Your task to perform on an android device: Show me popular videos on Youtube Image 0: 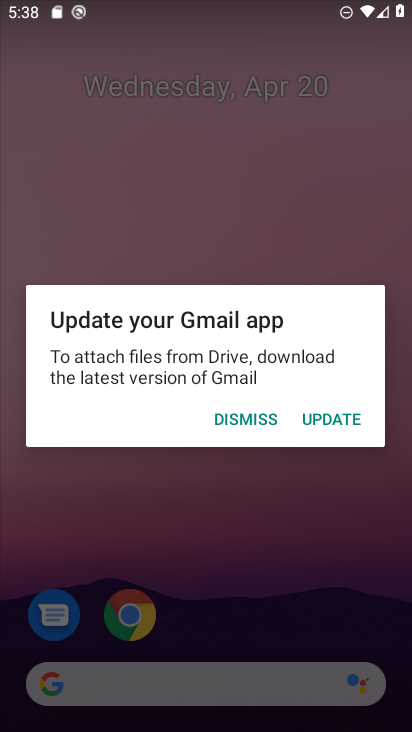
Step 0: press home button
Your task to perform on an android device: Show me popular videos on Youtube Image 1: 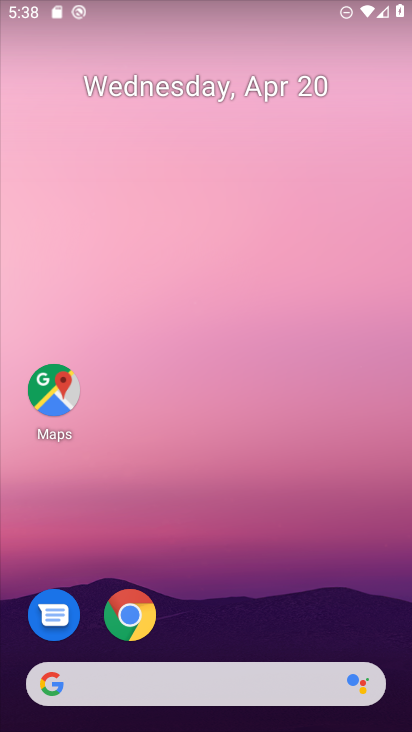
Step 1: drag from (238, 584) to (212, 119)
Your task to perform on an android device: Show me popular videos on Youtube Image 2: 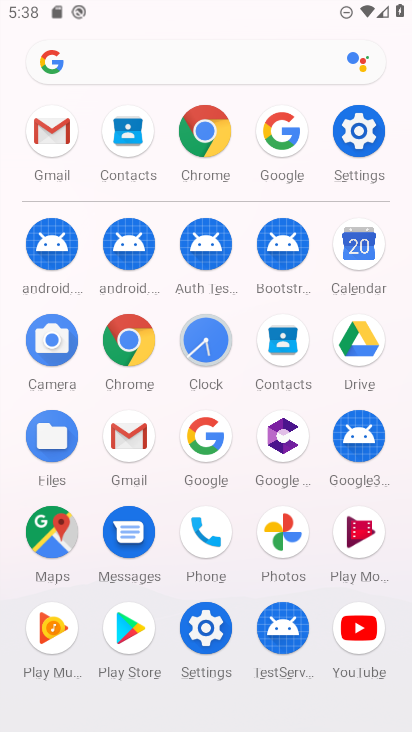
Step 2: click (343, 609)
Your task to perform on an android device: Show me popular videos on Youtube Image 3: 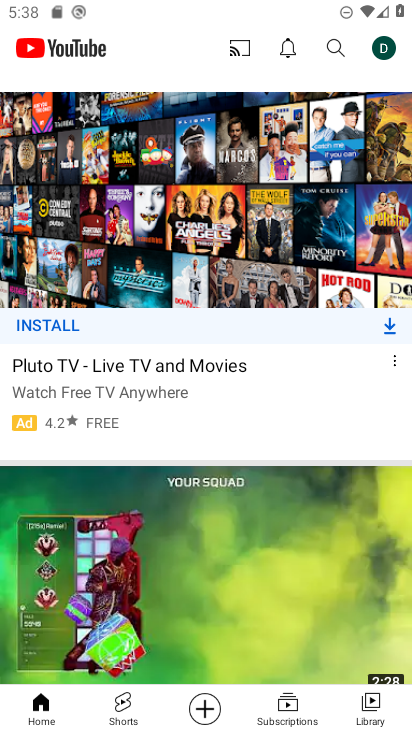
Step 3: click (55, 90)
Your task to perform on an android device: Show me popular videos on Youtube Image 4: 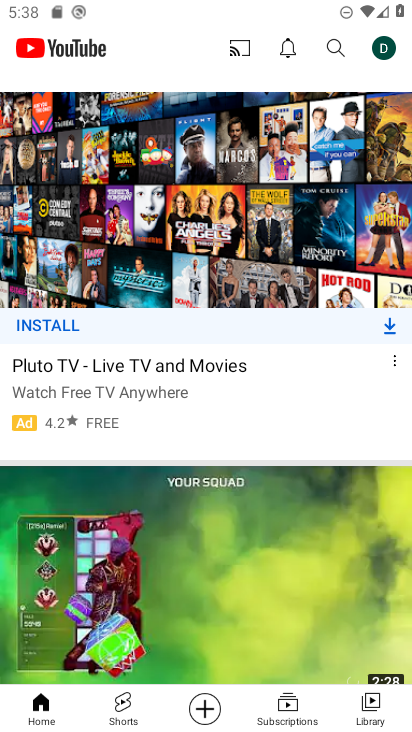
Step 4: drag from (136, 153) to (127, 560)
Your task to perform on an android device: Show me popular videos on Youtube Image 5: 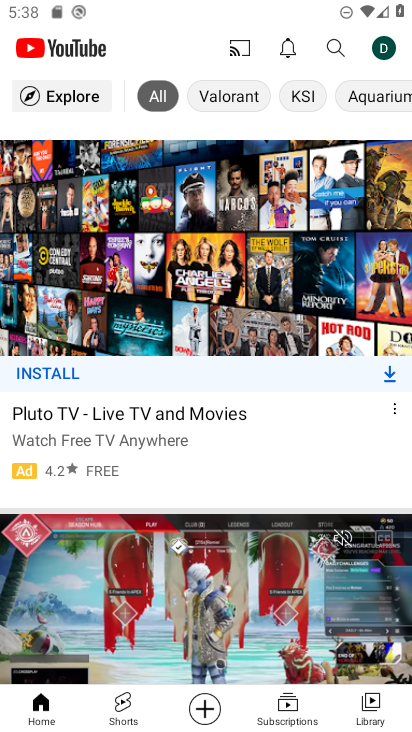
Step 5: click (62, 98)
Your task to perform on an android device: Show me popular videos on Youtube Image 6: 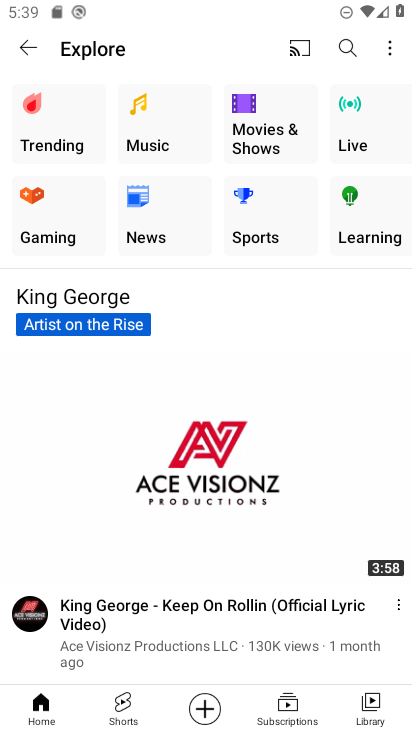
Step 6: click (51, 136)
Your task to perform on an android device: Show me popular videos on Youtube Image 7: 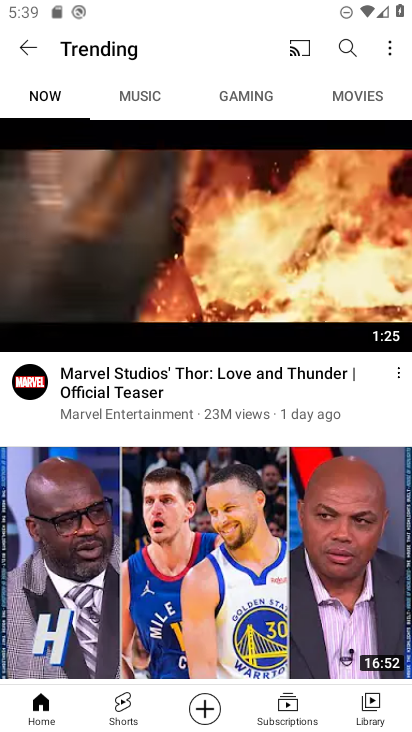
Step 7: task complete